Your task to perform on an android device: Is it going to rain this weekend? Image 0: 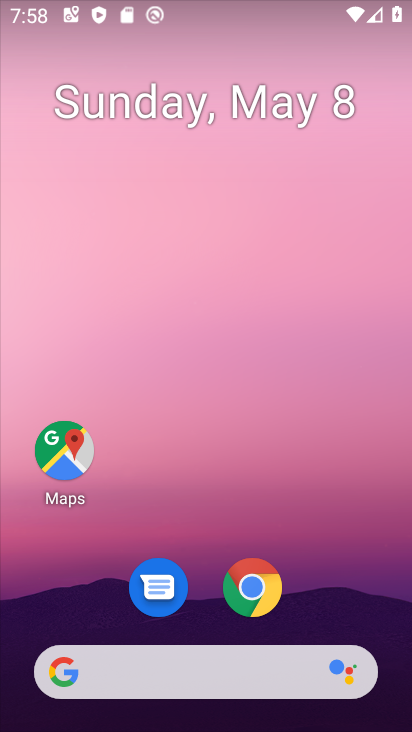
Step 0: drag from (194, 525) to (241, 39)
Your task to perform on an android device: Is it going to rain this weekend? Image 1: 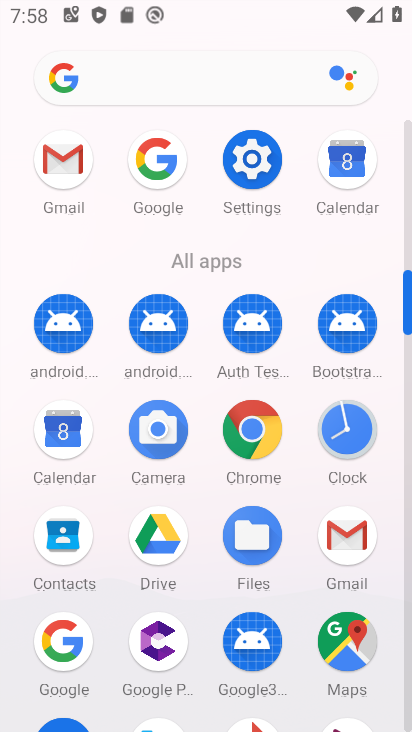
Step 1: click (150, 159)
Your task to perform on an android device: Is it going to rain this weekend? Image 2: 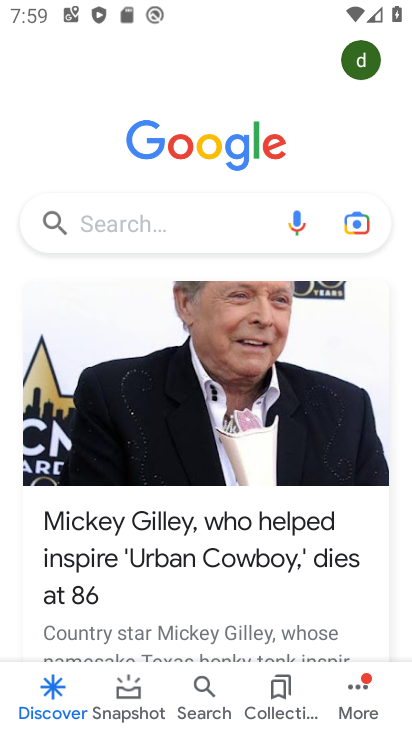
Step 2: click (128, 226)
Your task to perform on an android device: Is it going to rain this weekend? Image 3: 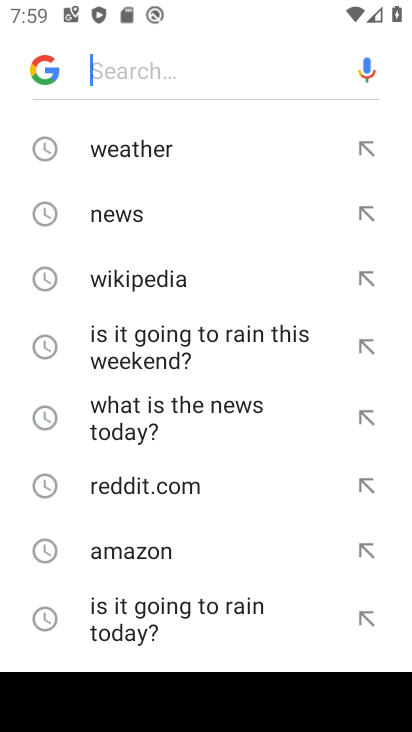
Step 3: click (154, 346)
Your task to perform on an android device: Is it going to rain this weekend? Image 4: 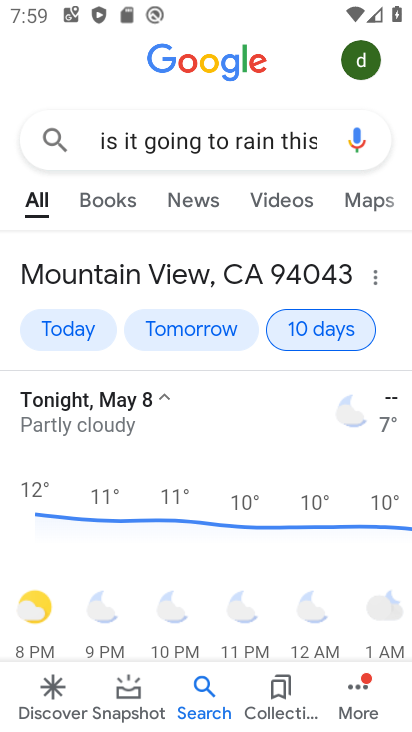
Step 4: task complete